Your task to perform on an android device: Open the map Image 0: 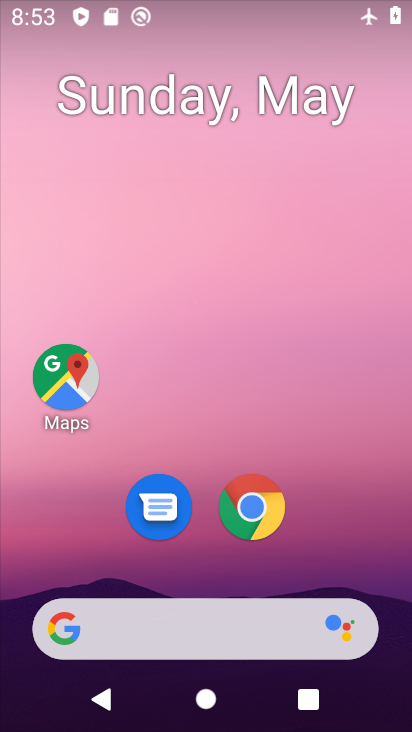
Step 0: click (88, 399)
Your task to perform on an android device: Open the map Image 1: 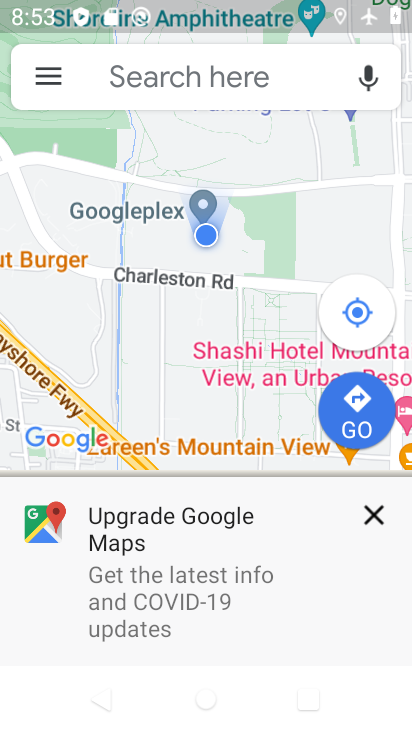
Step 1: click (371, 514)
Your task to perform on an android device: Open the map Image 2: 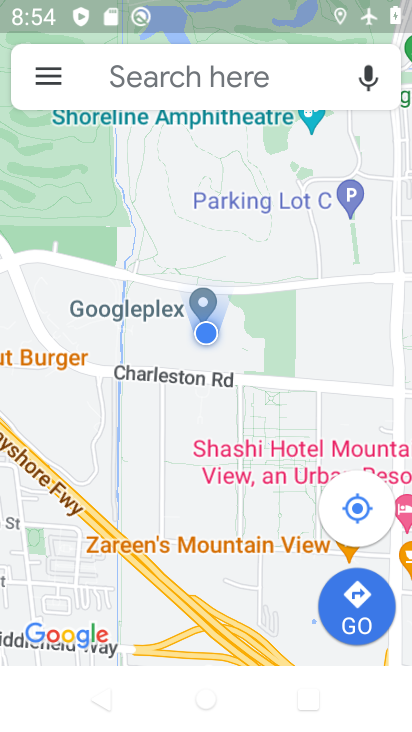
Step 2: task complete